Your task to perform on an android device: Open Yahoo.com Image 0: 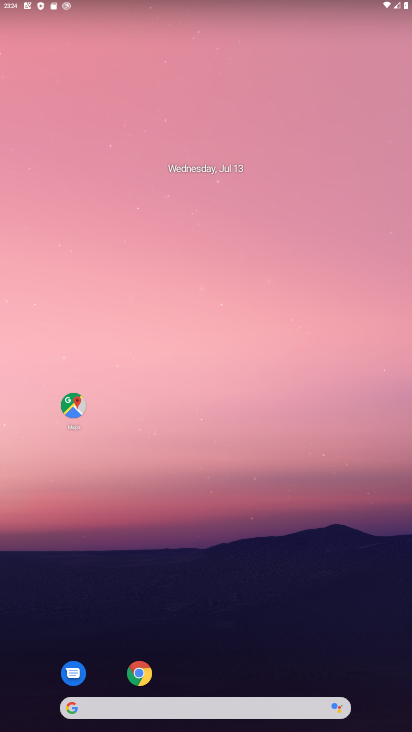
Step 0: click (130, 681)
Your task to perform on an android device: Open Yahoo.com Image 1: 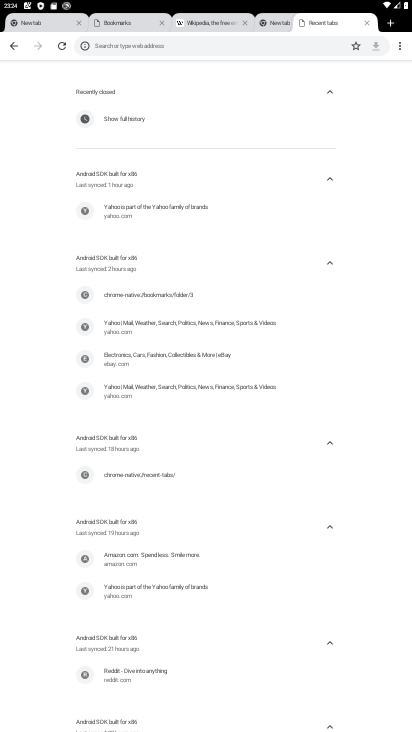
Step 1: click (389, 25)
Your task to perform on an android device: Open Yahoo.com Image 2: 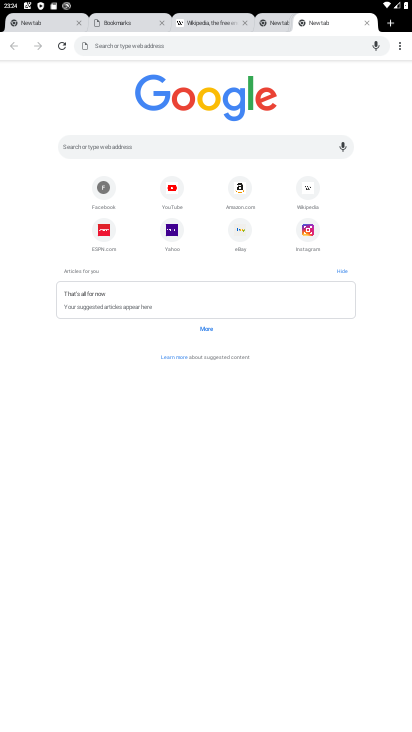
Step 2: click (169, 233)
Your task to perform on an android device: Open Yahoo.com Image 3: 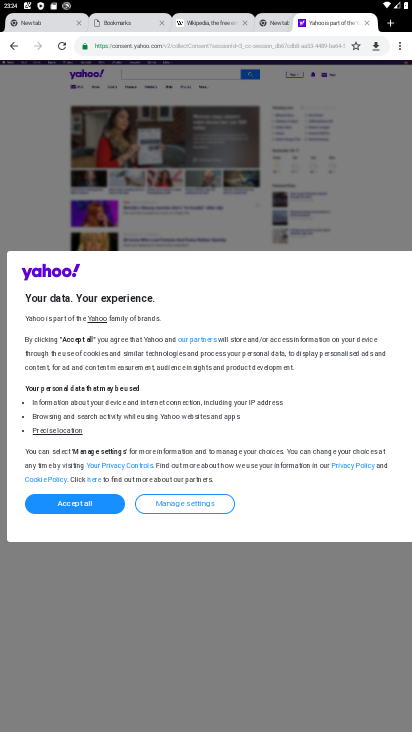
Step 3: task complete